Your task to perform on an android device: snooze an email in the gmail app Image 0: 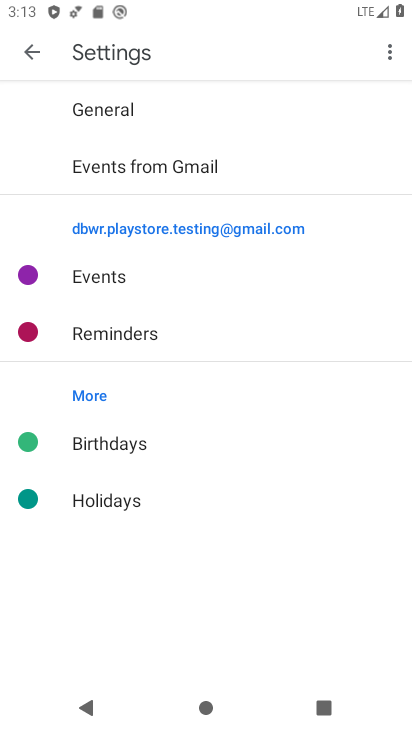
Step 0: press back button
Your task to perform on an android device: snooze an email in the gmail app Image 1: 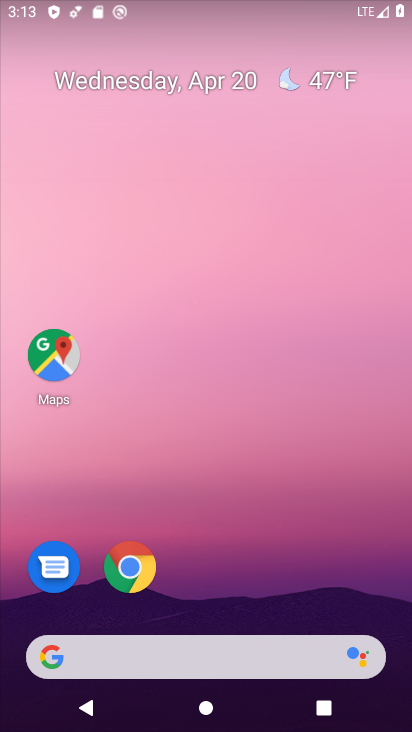
Step 1: drag from (290, 553) to (192, 19)
Your task to perform on an android device: snooze an email in the gmail app Image 2: 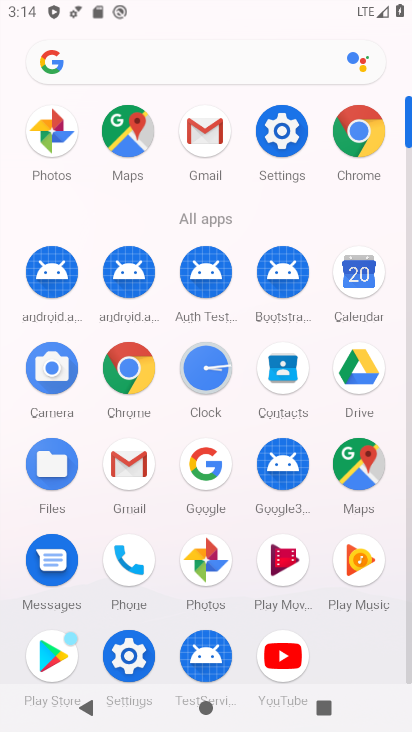
Step 2: click (131, 461)
Your task to perform on an android device: snooze an email in the gmail app Image 3: 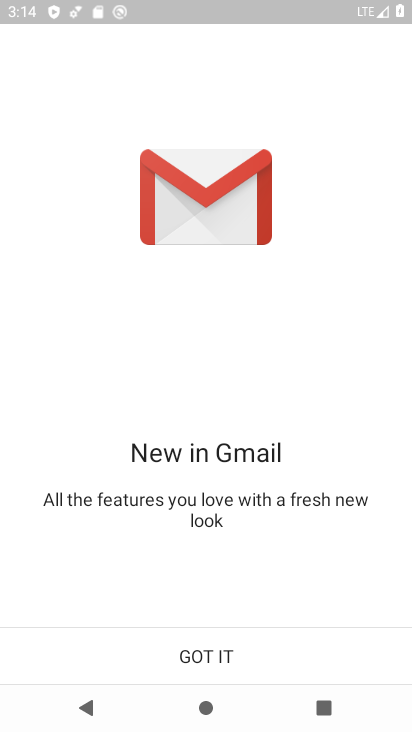
Step 3: click (185, 660)
Your task to perform on an android device: snooze an email in the gmail app Image 4: 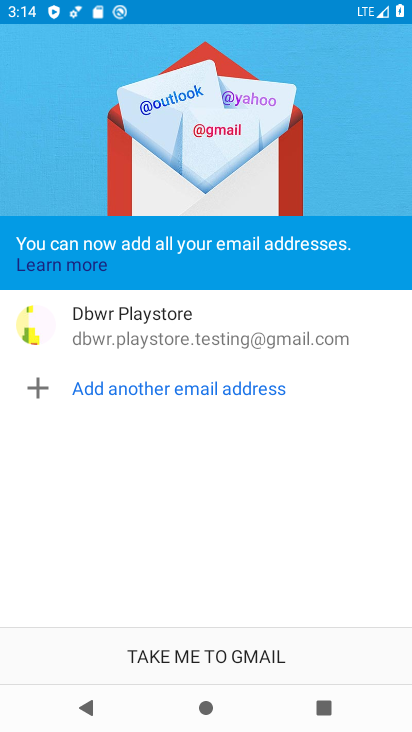
Step 4: click (189, 658)
Your task to perform on an android device: snooze an email in the gmail app Image 5: 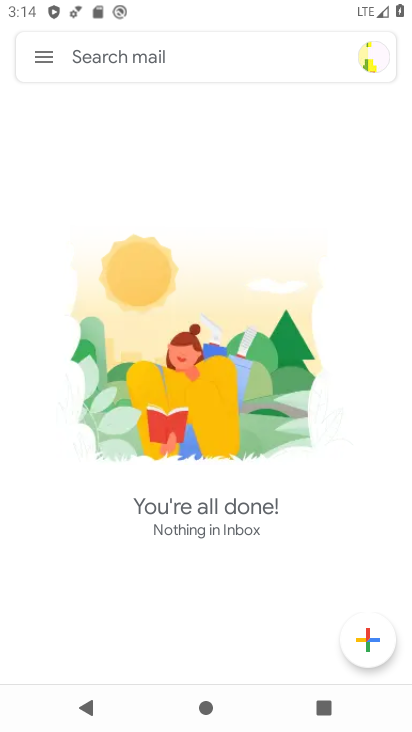
Step 5: click (54, 55)
Your task to perform on an android device: snooze an email in the gmail app Image 6: 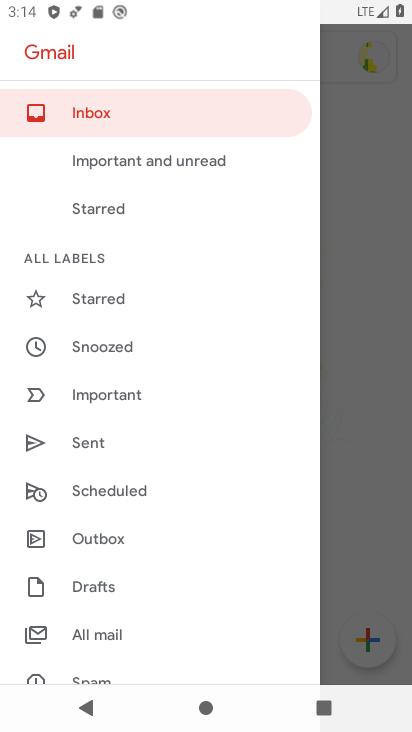
Step 6: drag from (183, 429) to (159, 113)
Your task to perform on an android device: snooze an email in the gmail app Image 7: 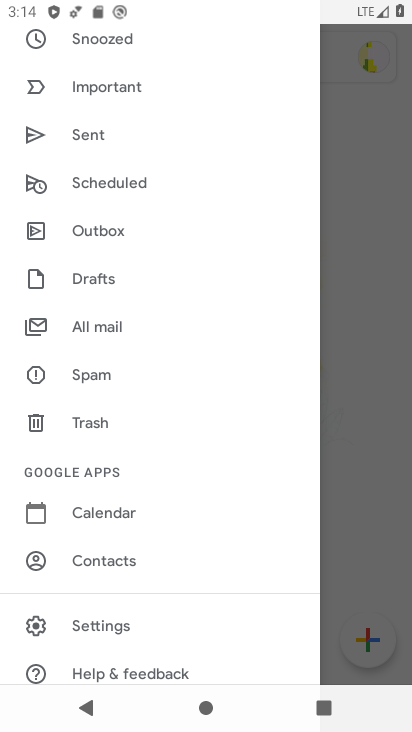
Step 7: drag from (163, 393) to (138, 102)
Your task to perform on an android device: snooze an email in the gmail app Image 8: 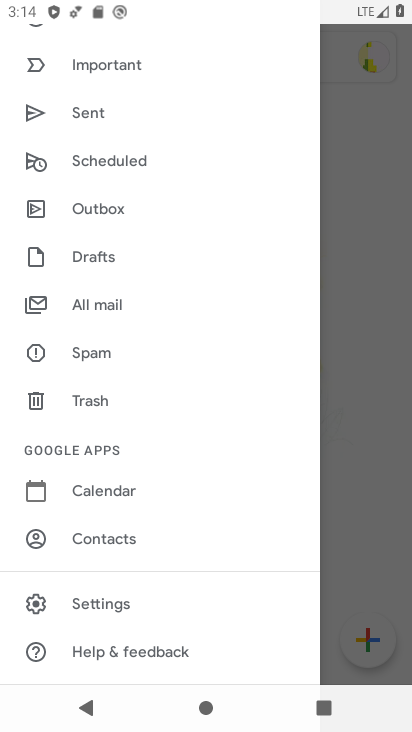
Step 8: drag from (167, 150) to (153, 478)
Your task to perform on an android device: snooze an email in the gmail app Image 9: 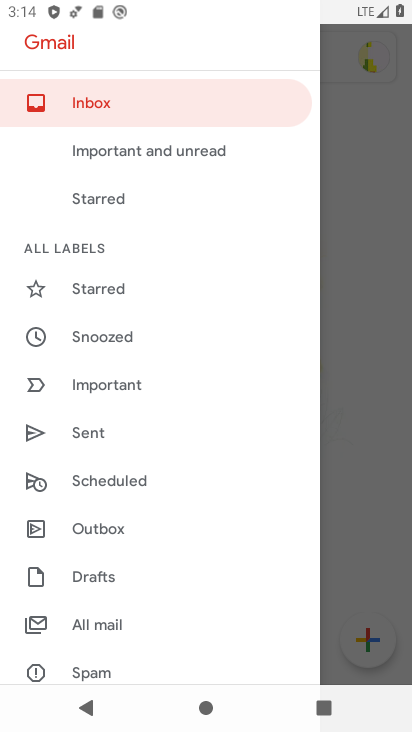
Step 9: click (126, 329)
Your task to perform on an android device: snooze an email in the gmail app Image 10: 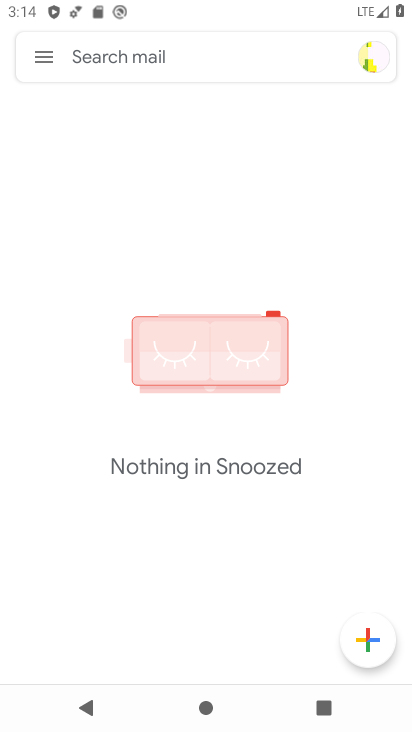
Step 10: click (33, 62)
Your task to perform on an android device: snooze an email in the gmail app Image 11: 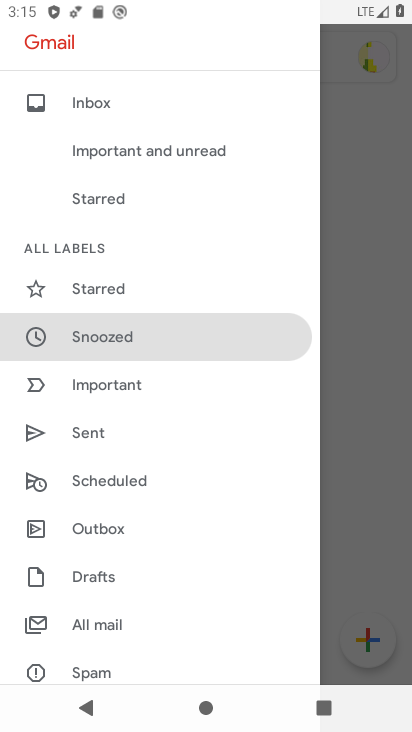
Step 11: click (126, 621)
Your task to perform on an android device: snooze an email in the gmail app Image 12: 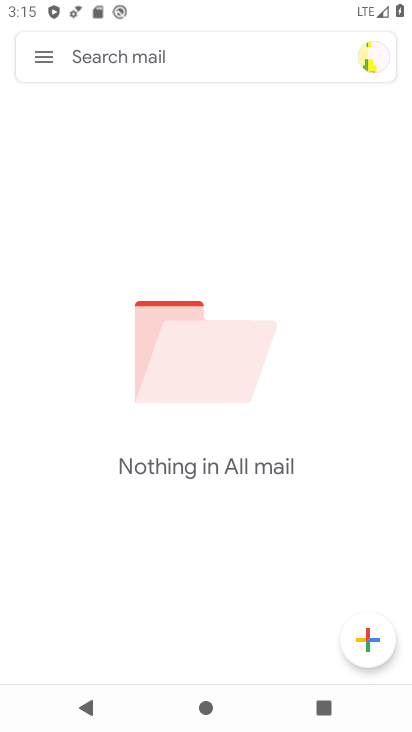
Step 12: task complete